Your task to perform on an android device: What's the weather going to be this weekend? Image 0: 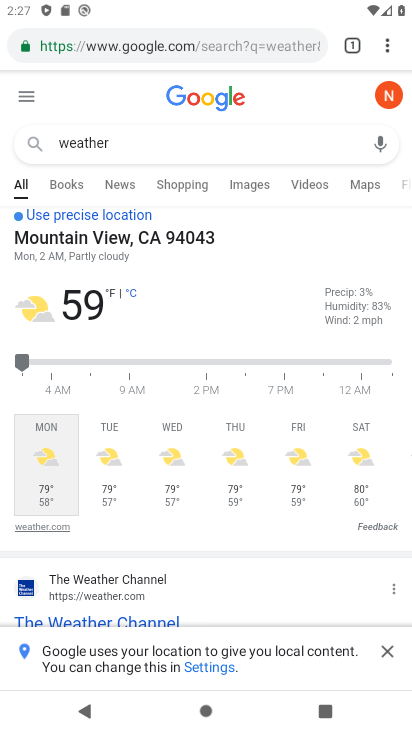
Step 0: press home button
Your task to perform on an android device: What's the weather going to be this weekend? Image 1: 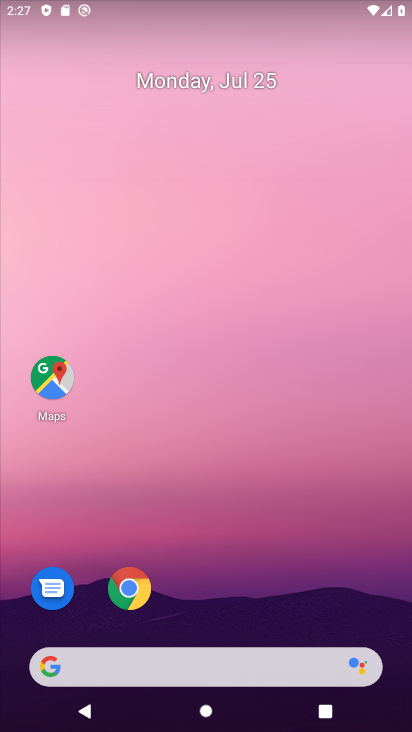
Step 1: click (138, 573)
Your task to perform on an android device: What's the weather going to be this weekend? Image 2: 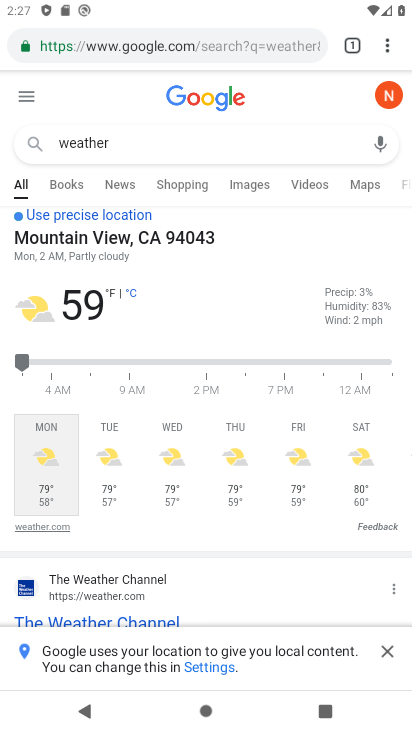
Step 2: click (367, 461)
Your task to perform on an android device: What's the weather going to be this weekend? Image 3: 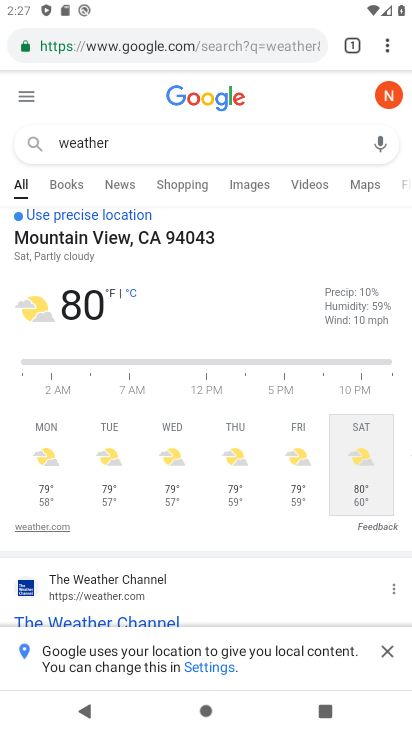
Step 3: task complete